Your task to perform on an android device: set the stopwatch Image 0: 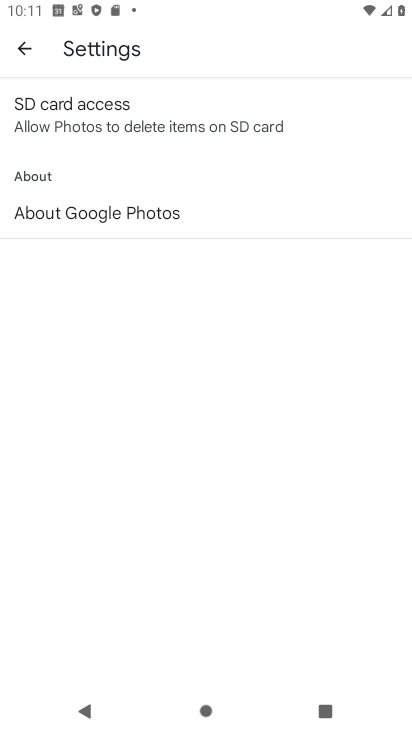
Step 0: press home button
Your task to perform on an android device: set the stopwatch Image 1: 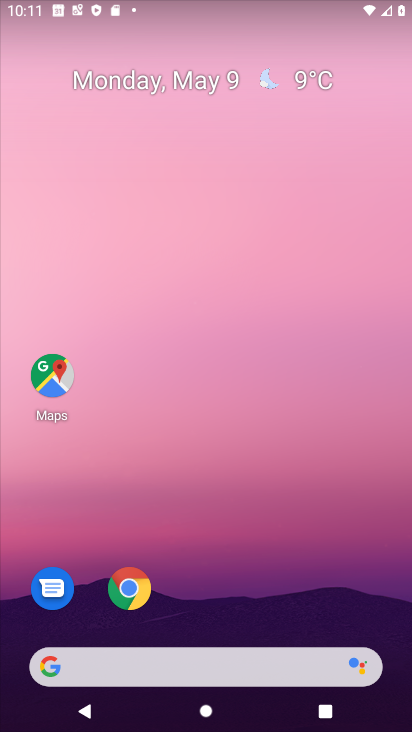
Step 1: drag from (147, 668) to (340, 15)
Your task to perform on an android device: set the stopwatch Image 2: 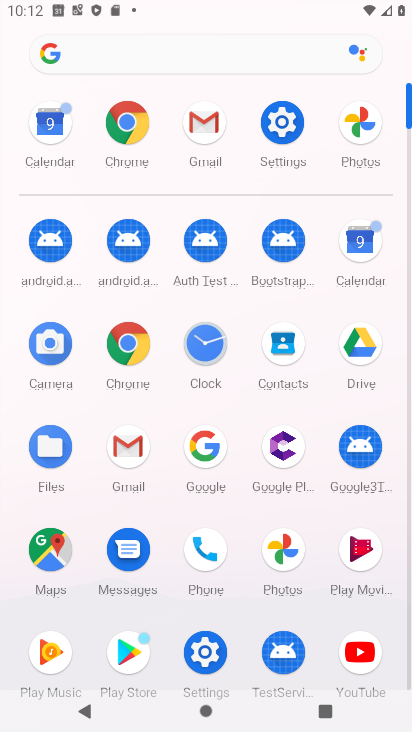
Step 2: click (211, 343)
Your task to perform on an android device: set the stopwatch Image 3: 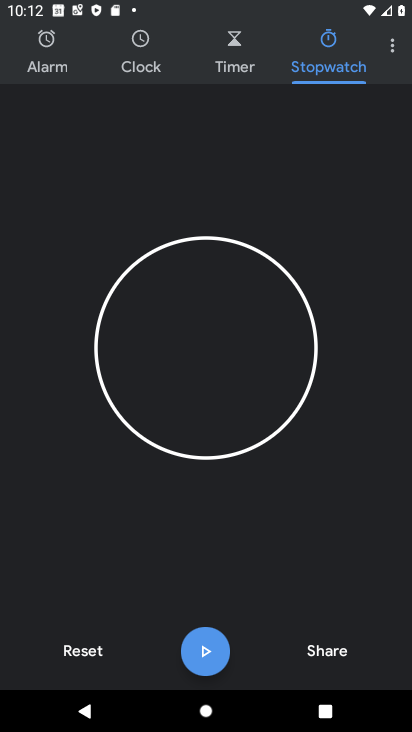
Step 3: click (80, 652)
Your task to perform on an android device: set the stopwatch Image 4: 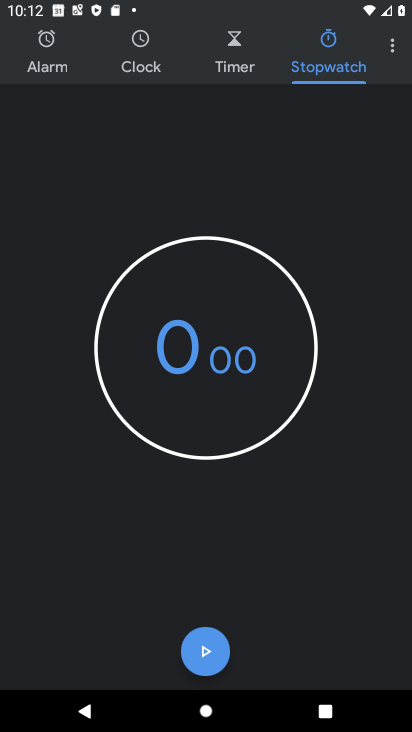
Step 4: click (202, 369)
Your task to perform on an android device: set the stopwatch Image 5: 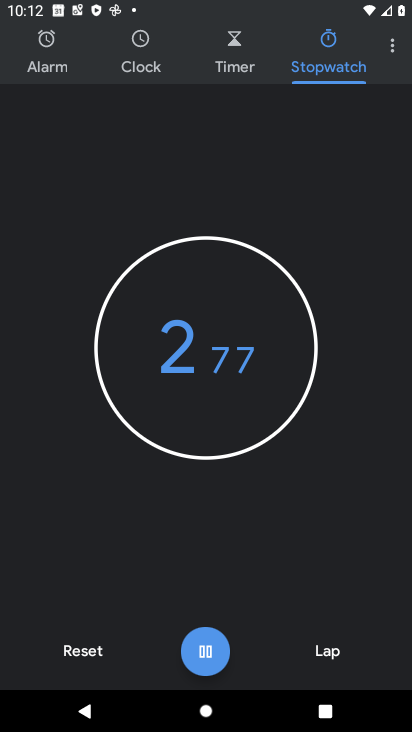
Step 5: click (204, 366)
Your task to perform on an android device: set the stopwatch Image 6: 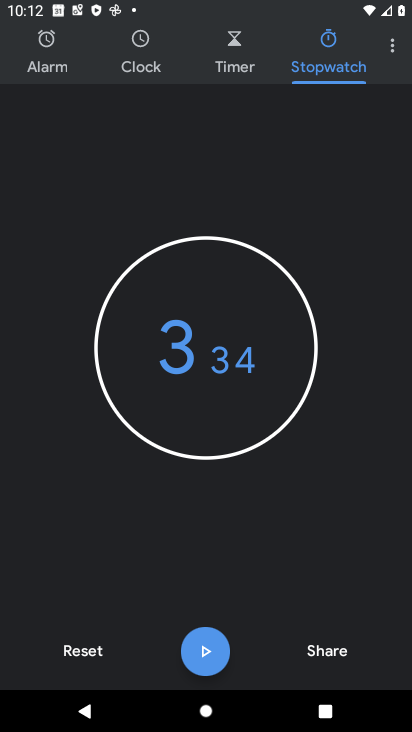
Step 6: task complete